Your task to perform on an android device: Open privacy settings Image 0: 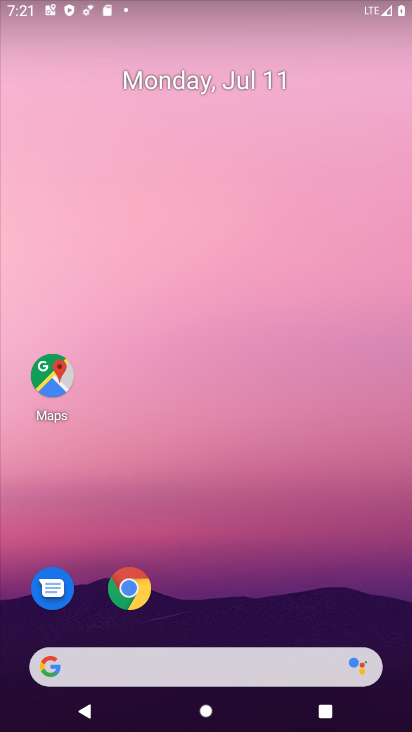
Step 0: drag from (343, 602) to (229, 53)
Your task to perform on an android device: Open privacy settings Image 1: 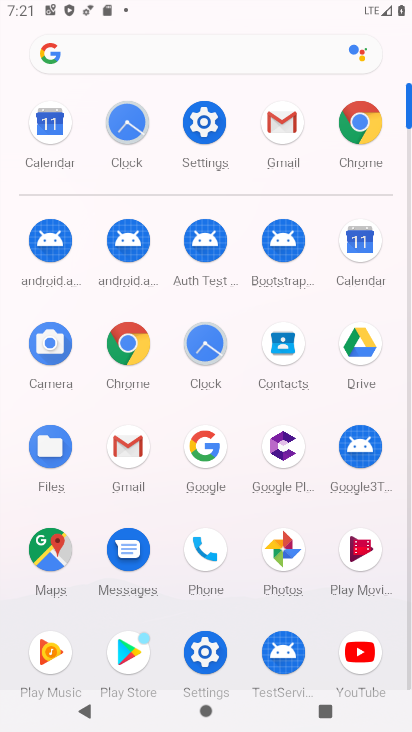
Step 1: click (199, 632)
Your task to perform on an android device: Open privacy settings Image 2: 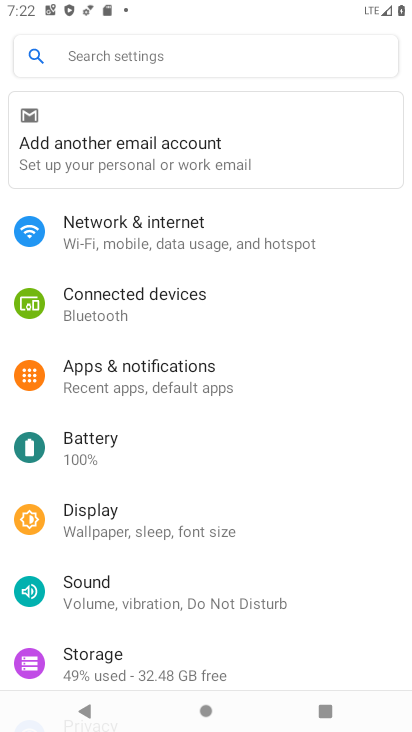
Step 2: drag from (92, 654) to (107, 397)
Your task to perform on an android device: Open privacy settings Image 3: 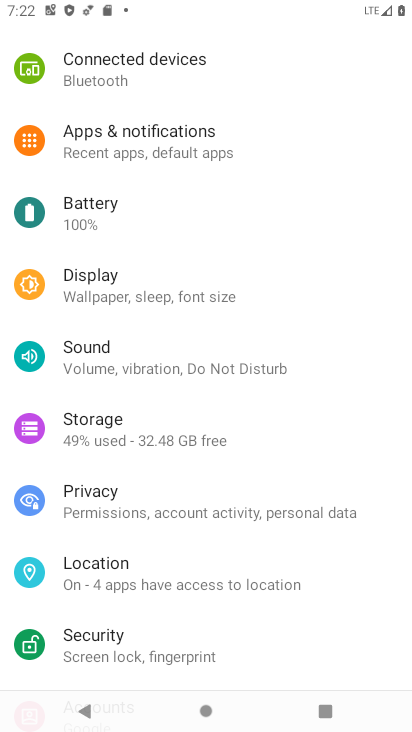
Step 3: click (100, 511)
Your task to perform on an android device: Open privacy settings Image 4: 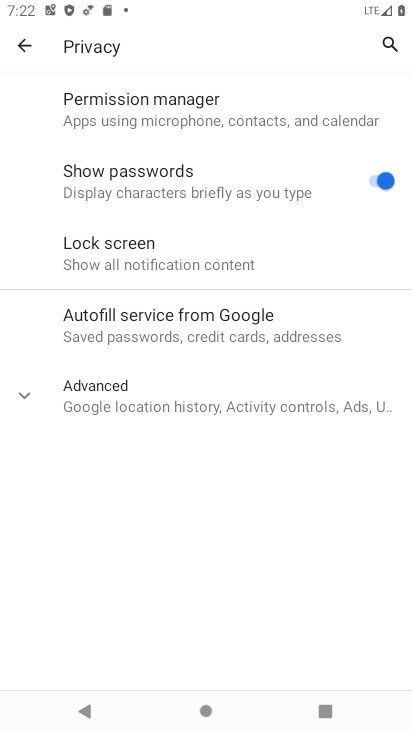
Step 4: task complete